Your task to perform on an android device: see tabs open on other devices in the chrome app Image 0: 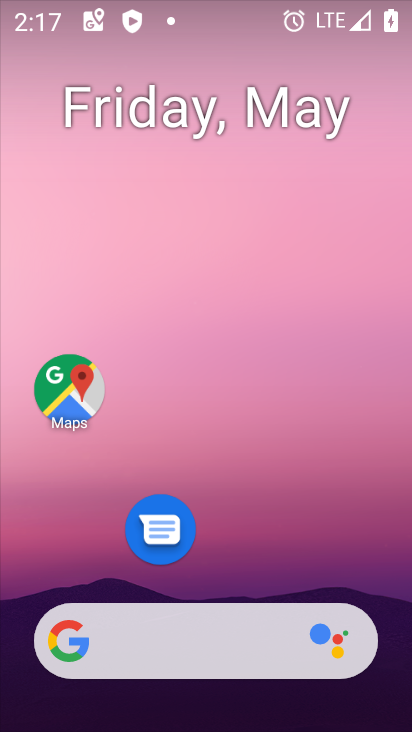
Step 0: click (236, 76)
Your task to perform on an android device: see tabs open on other devices in the chrome app Image 1: 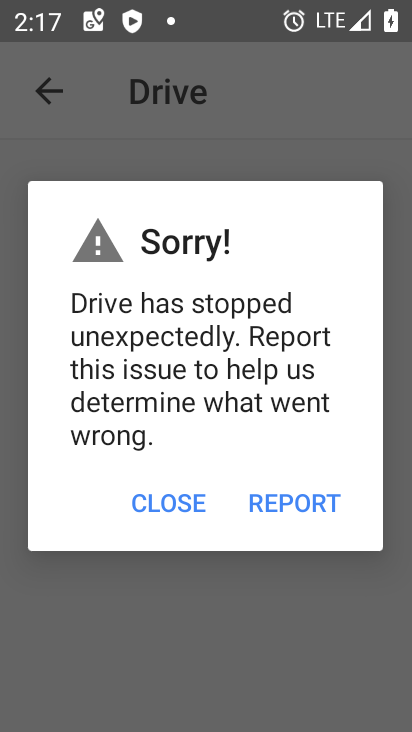
Step 1: drag from (219, 574) to (259, 138)
Your task to perform on an android device: see tabs open on other devices in the chrome app Image 2: 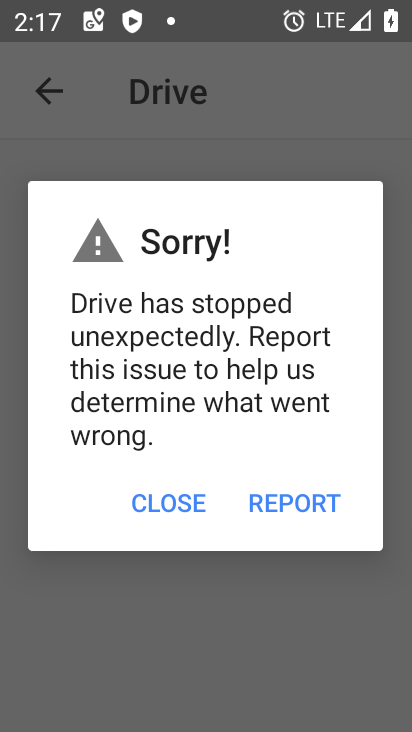
Step 2: press home button
Your task to perform on an android device: see tabs open on other devices in the chrome app Image 3: 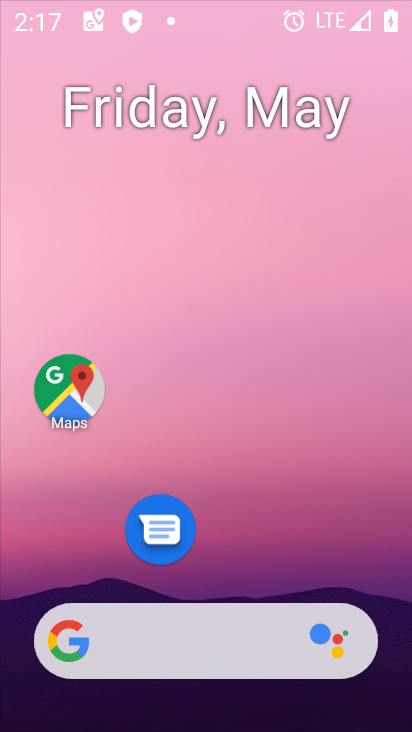
Step 3: drag from (228, 614) to (251, 160)
Your task to perform on an android device: see tabs open on other devices in the chrome app Image 4: 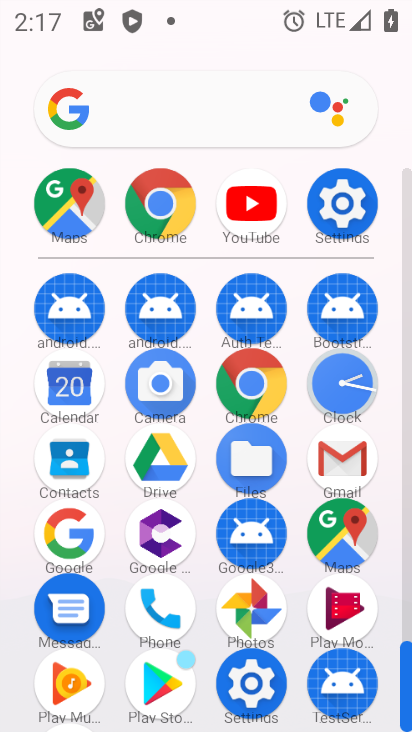
Step 4: drag from (199, 629) to (218, 272)
Your task to perform on an android device: see tabs open on other devices in the chrome app Image 5: 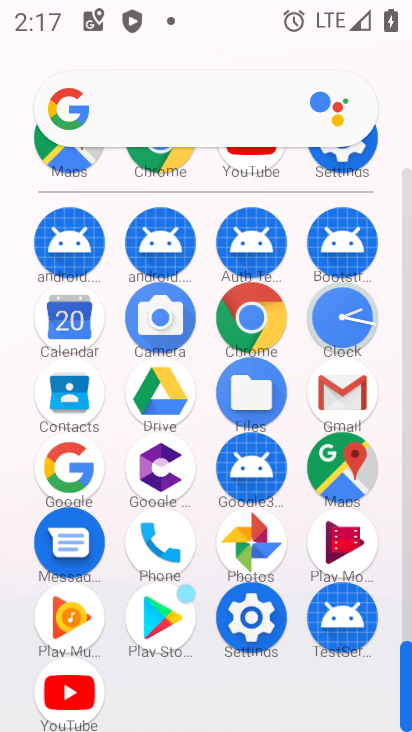
Step 5: click (250, 319)
Your task to perform on an android device: see tabs open on other devices in the chrome app Image 6: 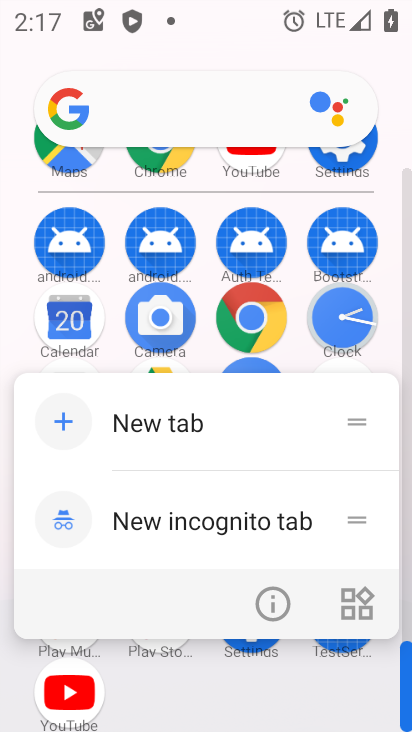
Step 6: click (270, 608)
Your task to perform on an android device: see tabs open on other devices in the chrome app Image 7: 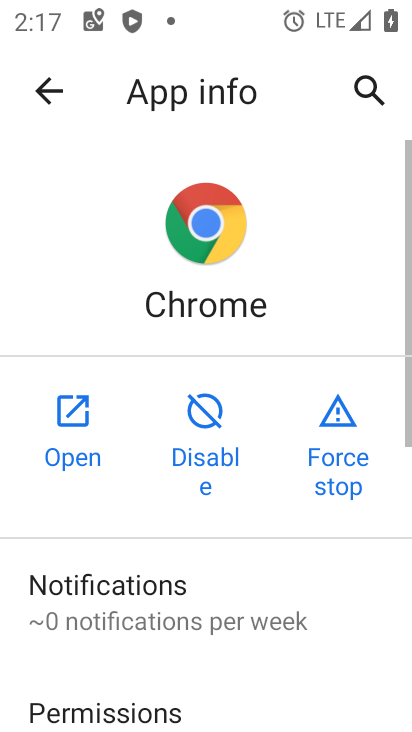
Step 7: click (73, 432)
Your task to perform on an android device: see tabs open on other devices in the chrome app Image 8: 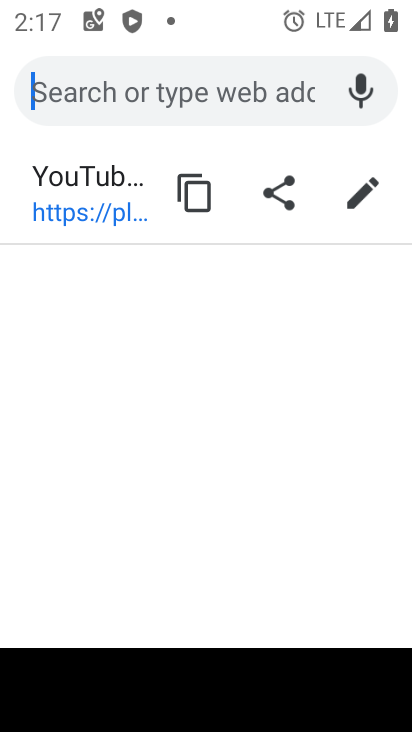
Step 8: press back button
Your task to perform on an android device: see tabs open on other devices in the chrome app Image 9: 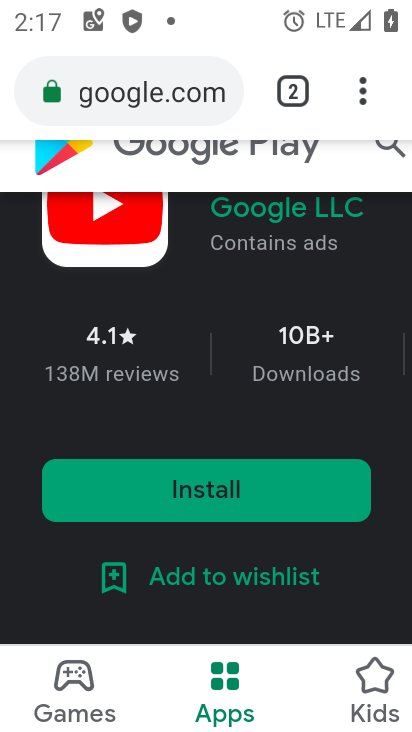
Step 9: click (353, 88)
Your task to perform on an android device: see tabs open on other devices in the chrome app Image 10: 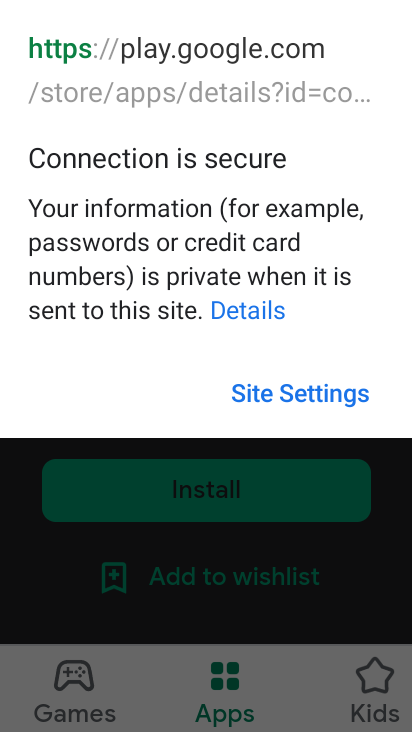
Step 10: click (272, 393)
Your task to perform on an android device: see tabs open on other devices in the chrome app Image 11: 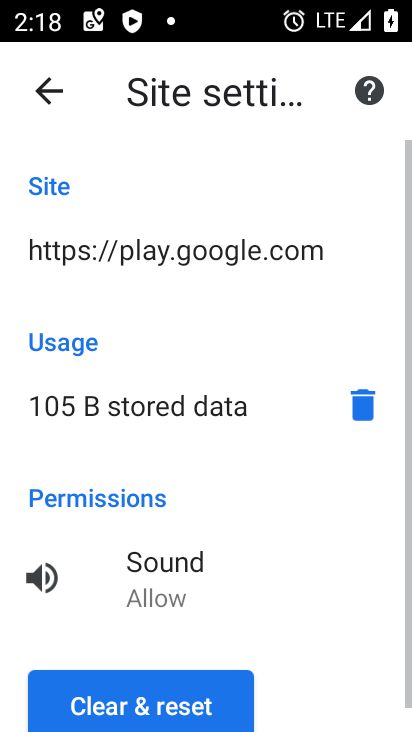
Step 11: press back button
Your task to perform on an android device: see tabs open on other devices in the chrome app Image 12: 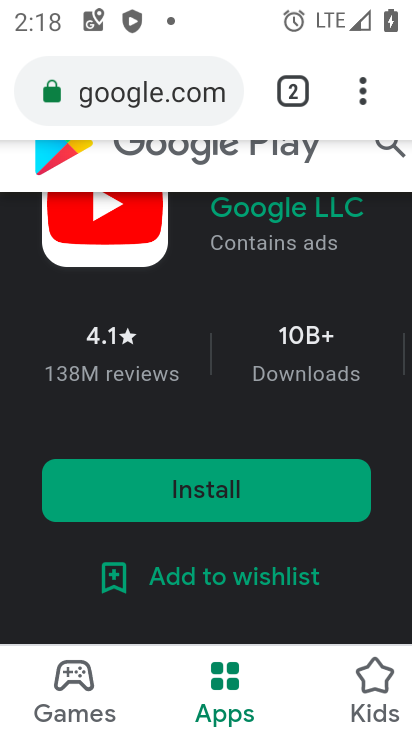
Step 12: click (360, 98)
Your task to perform on an android device: see tabs open on other devices in the chrome app Image 13: 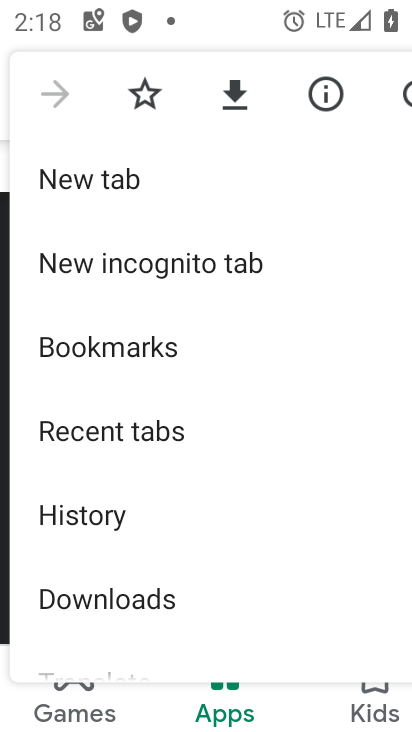
Step 13: drag from (237, 462) to (337, 184)
Your task to perform on an android device: see tabs open on other devices in the chrome app Image 14: 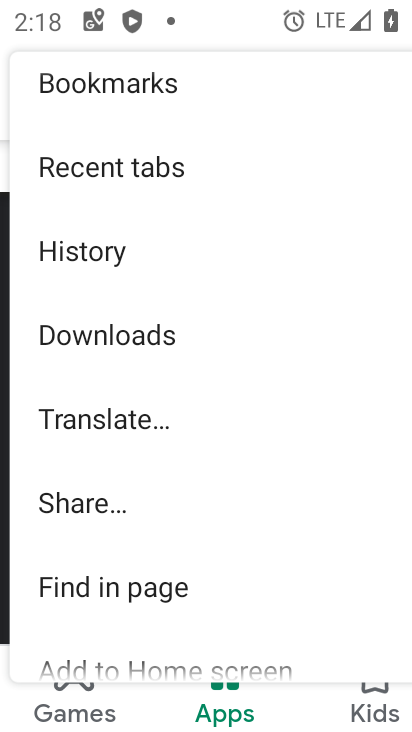
Step 14: drag from (220, 620) to (262, 229)
Your task to perform on an android device: see tabs open on other devices in the chrome app Image 15: 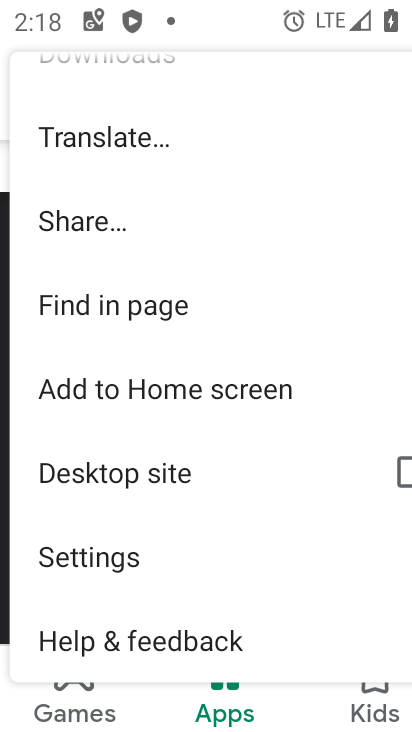
Step 15: click (119, 552)
Your task to perform on an android device: see tabs open on other devices in the chrome app Image 16: 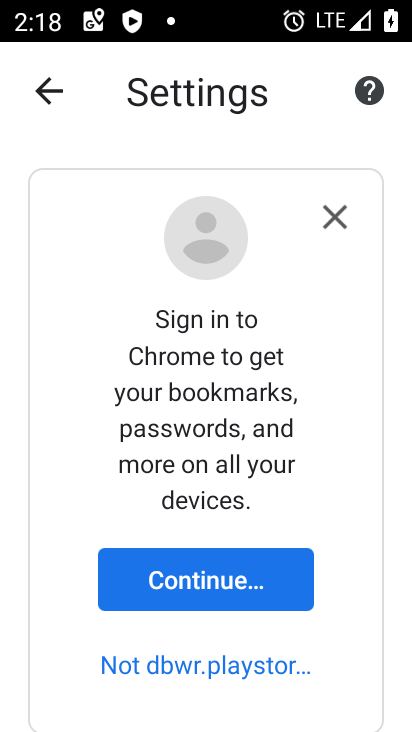
Step 16: drag from (278, 562) to (289, 361)
Your task to perform on an android device: see tabs open on other devices in the chrome app Image 17: 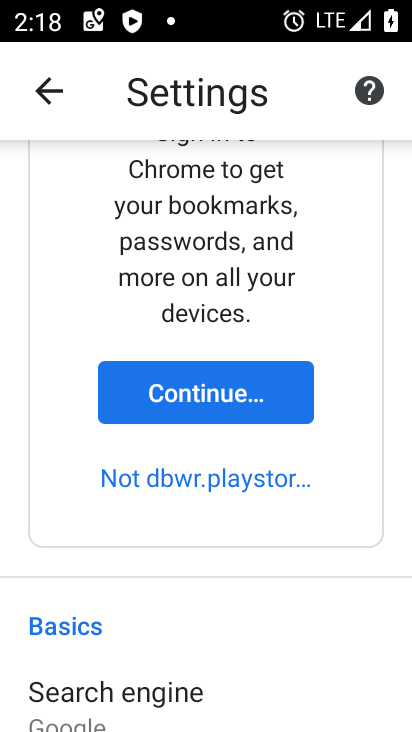
Step 17: click (46, 102)
Your task to perform on an android device: see tabs open on other devices in the chrome app Image 18: 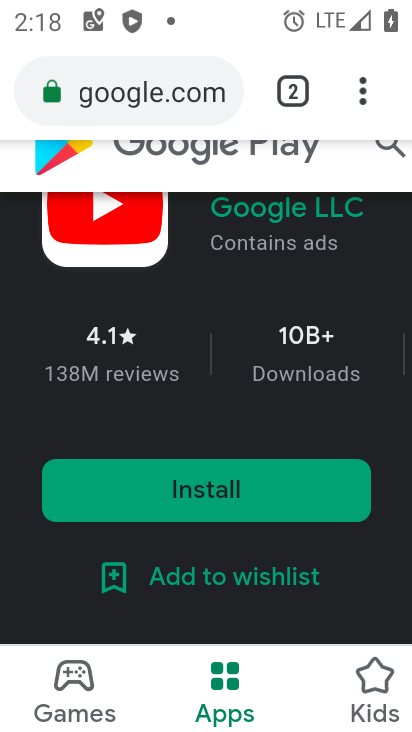
Step 18: click (366, 88)
Your task to perform on an android device: see tabs open on other devices in the chrome app Image 19: 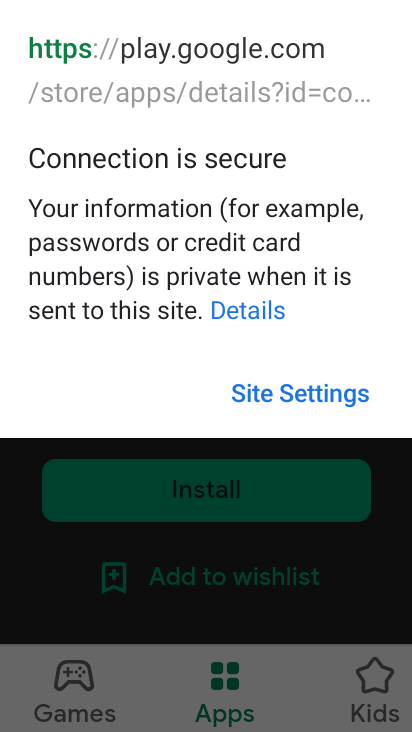
Step 19: click (301, 395)
Your task to perform on an android device: see tabs open on other devices in the chrome app Image 20: 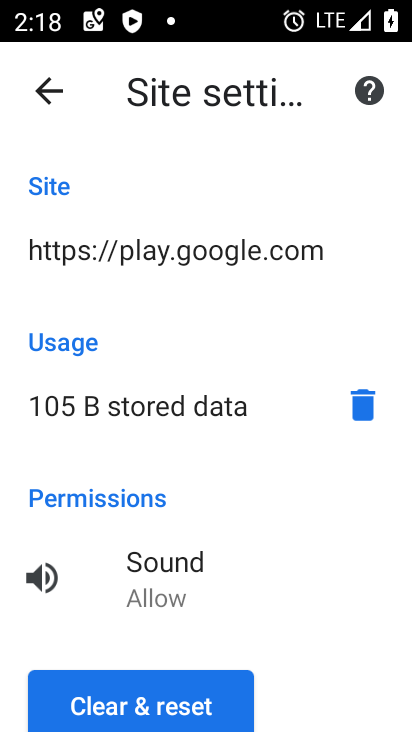
Step 20: click (56, 80)
Your task to perform on an android device: see tabs open on other devices in the chrome app Image 21: 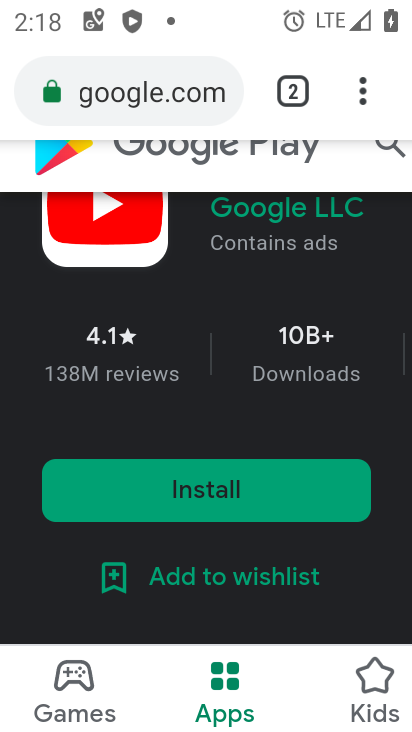
Step 21: click (363, 85)
Your task to perform on an android device: see tabs open on other devices in the chrome app Image 22: 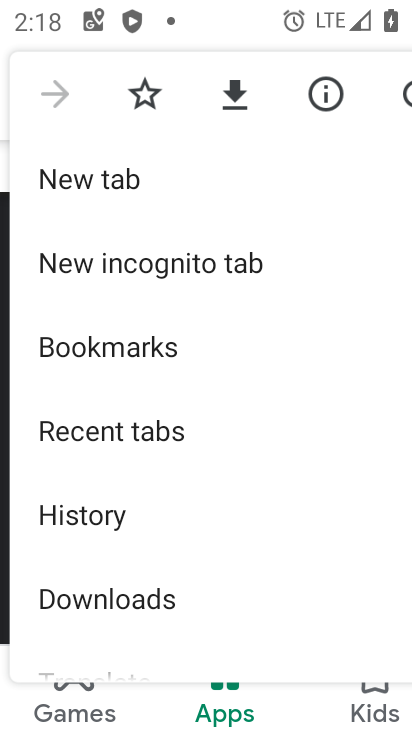
Step 22: click (218, 430)
Your task to perform on an android device: see tabs open on other devices in the chrome app Image 23: 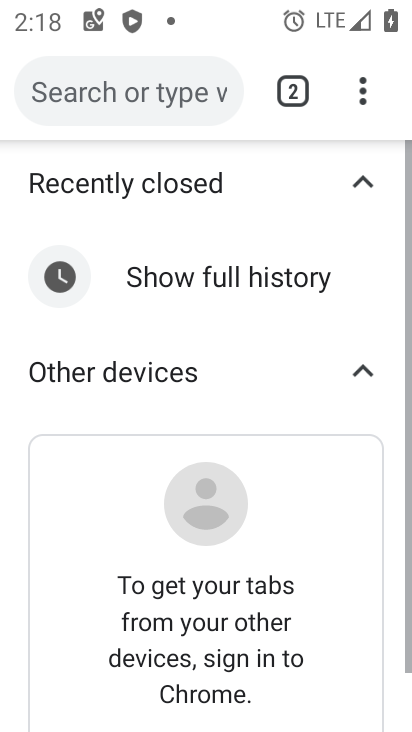
Step 23: task complete